Your task to perform on an android device: Search for amazon basics triple a on bestbuy, select the first entry, and add it to the cart. Image 0: 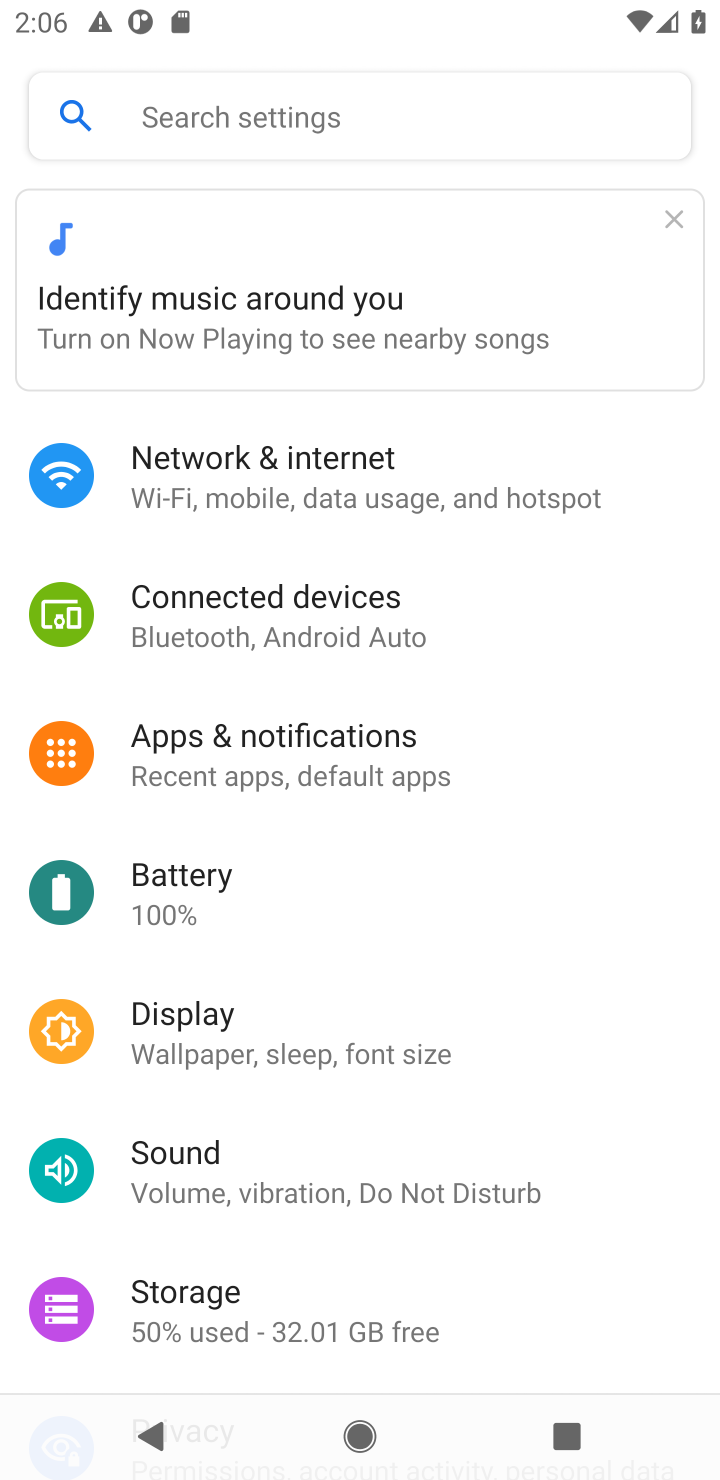
Step 0: press home button
Your task to perform on an android device: Search for amazon basics triple a on bestbuy, select the first entry, and add it to the cart. Image 1: 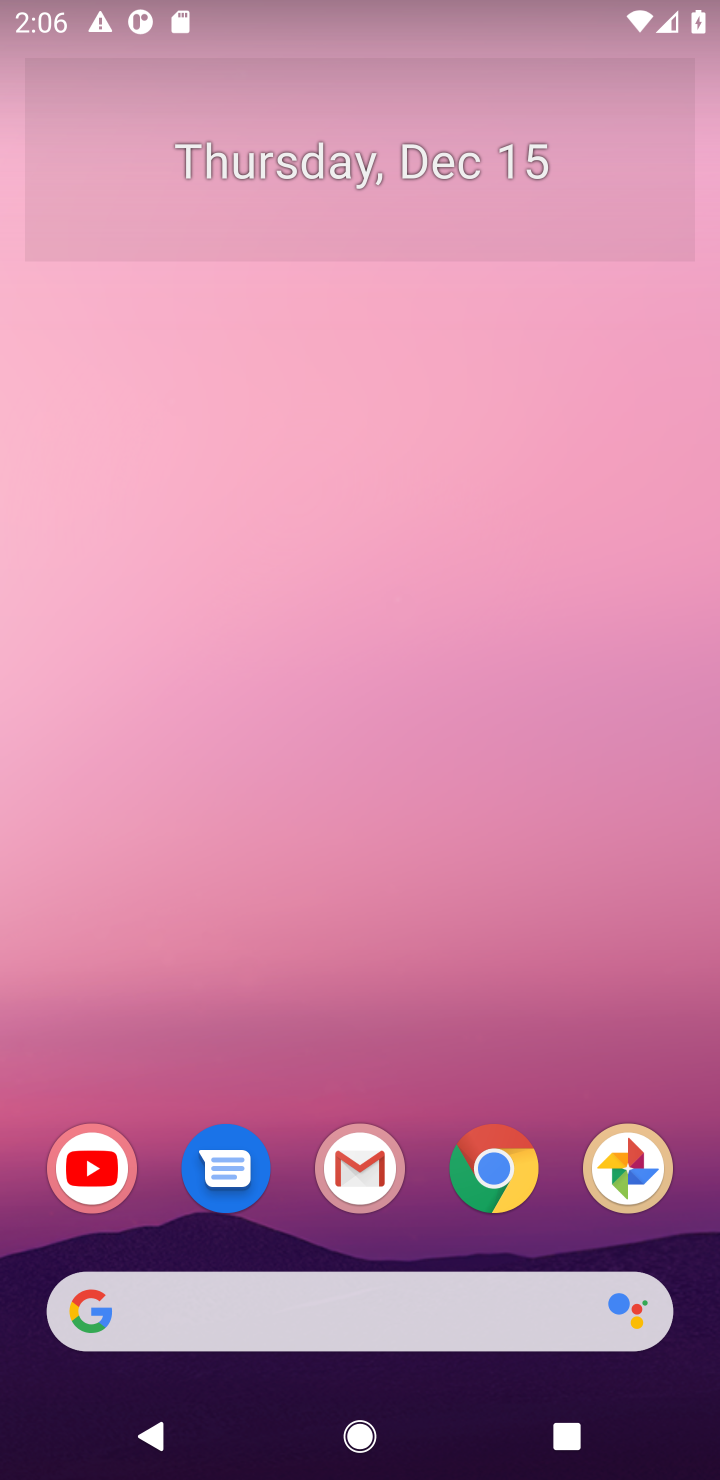
Step 1: click (512, 1177)
Your task to perform on an android device: Search for amazon basics triple a on bestbuy, select the first entry, and add it to the cart. Image 2: 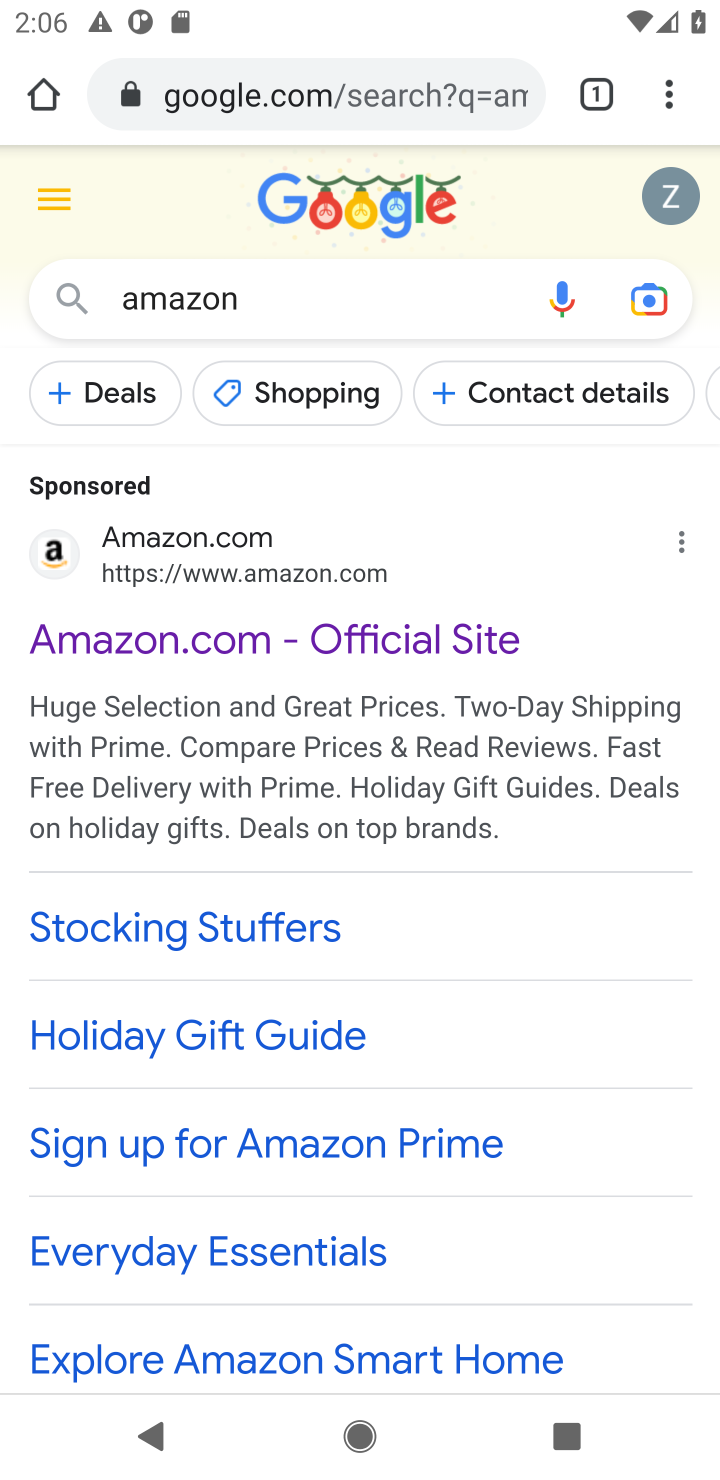
Step 2: click (374, 87)
Your task to perform on an android device: Search for amazon basics triple a on bestbuy, select the first entry, and add it to the cart. Image 3: 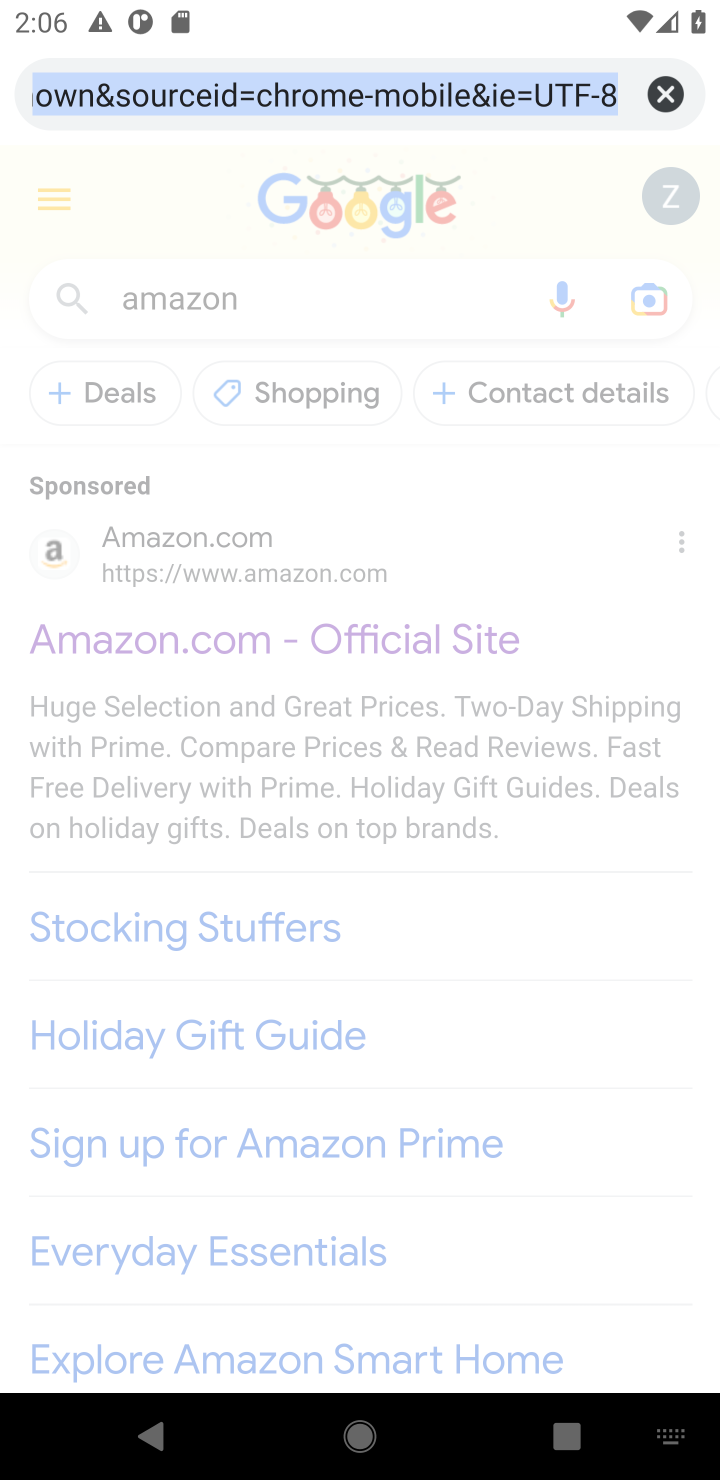
Step 3: click (662, 92)
Your task to perform on an android device: Search for amazon basics triple a on bestbuy, select the first entry, and add it to the cart. Image 4: 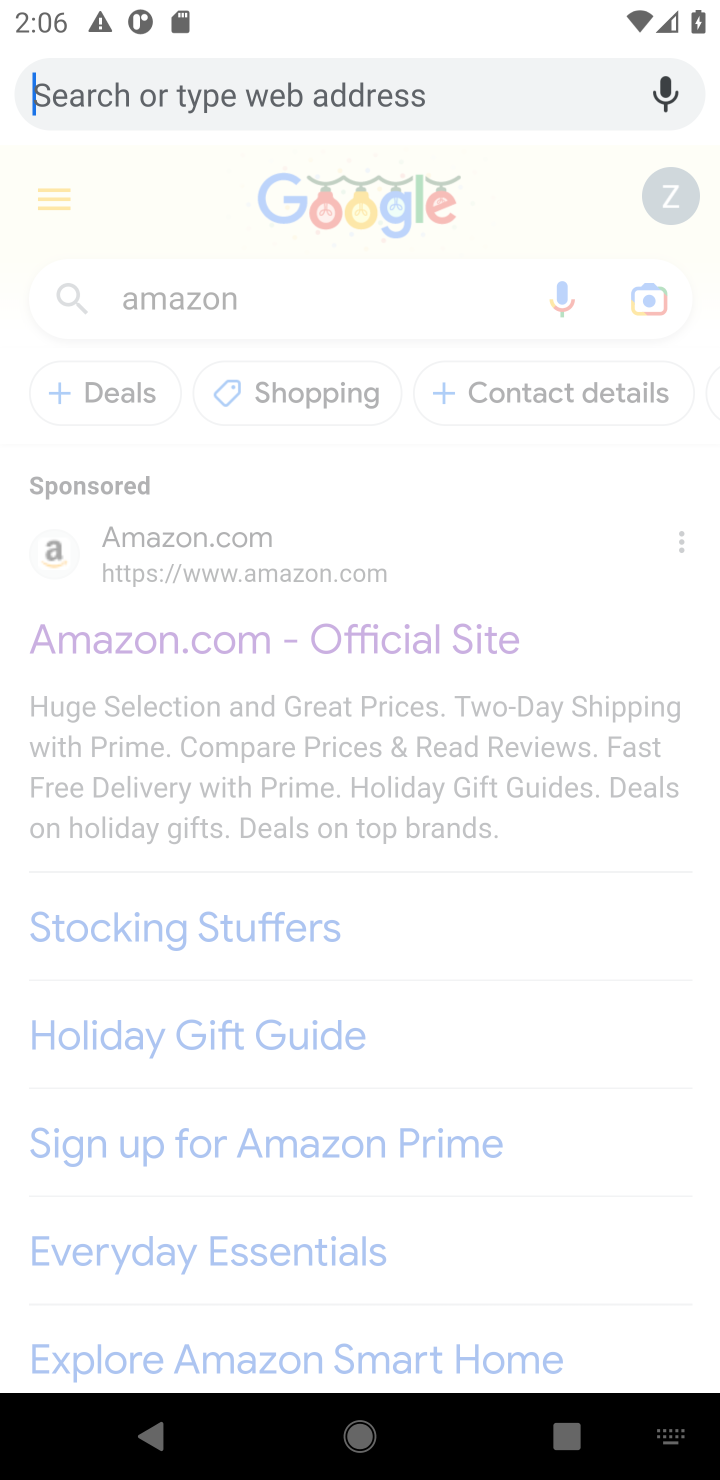
Step 4: click (420, 86)
Your task to perform on an android device: Search for amazon basics triple a on bestbuy, select the first entry, and add it to the cart. Image 5: 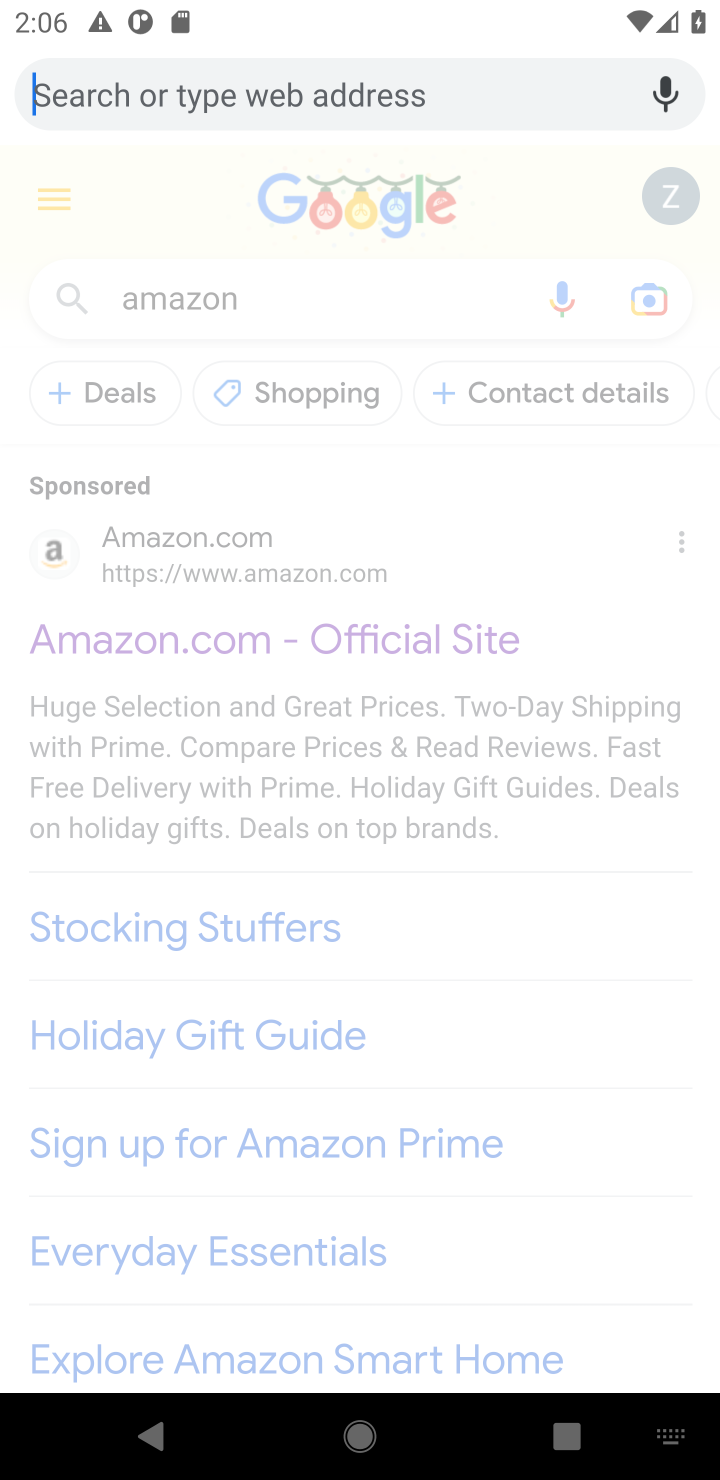
Step 5: press enter
Your task to perform on an android device: Search for amazon basics triple a on bestbuy, select the first entry, and add it to the cart. Image 6: 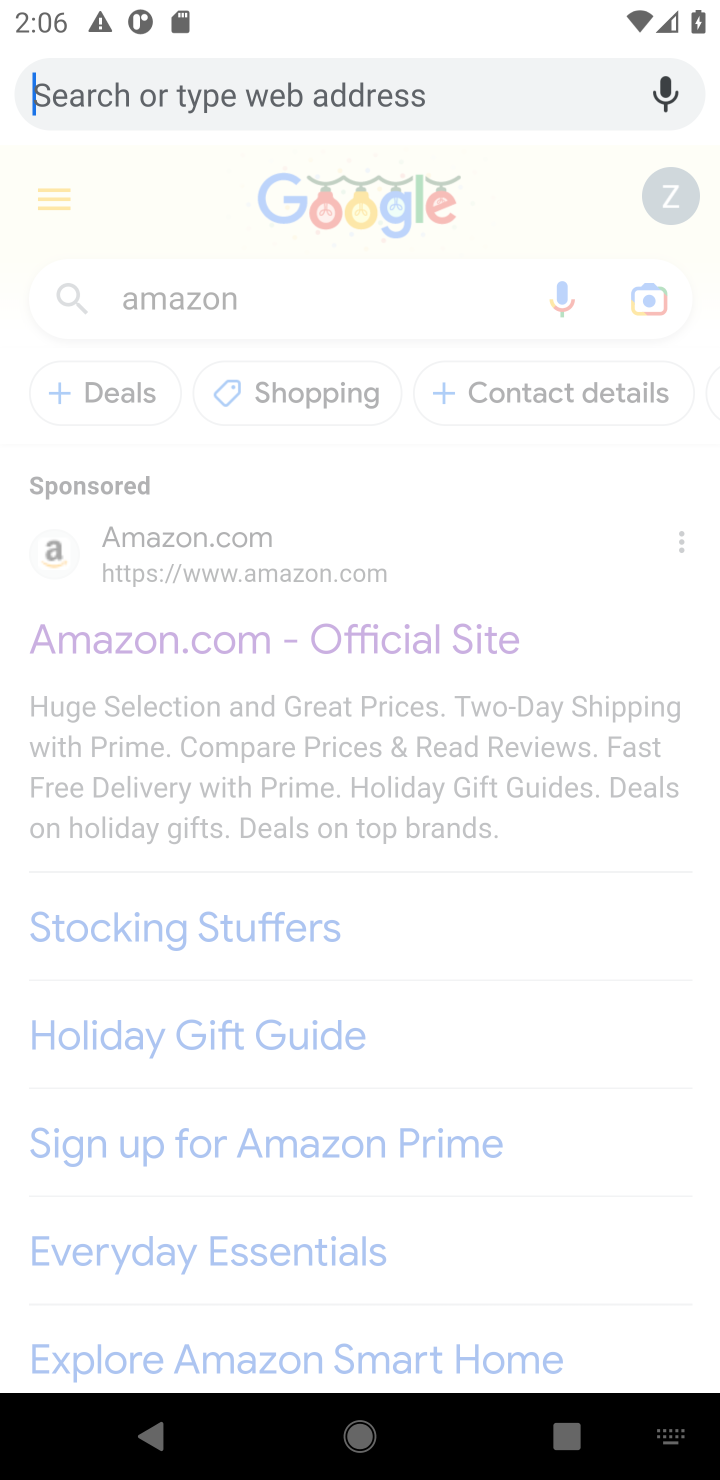
Step 6: type "bestbuy"
Your task to perform on an android device: Search for amazon basics triple a on bestbuy, select the first entry, and add it to the cart. Image 7: 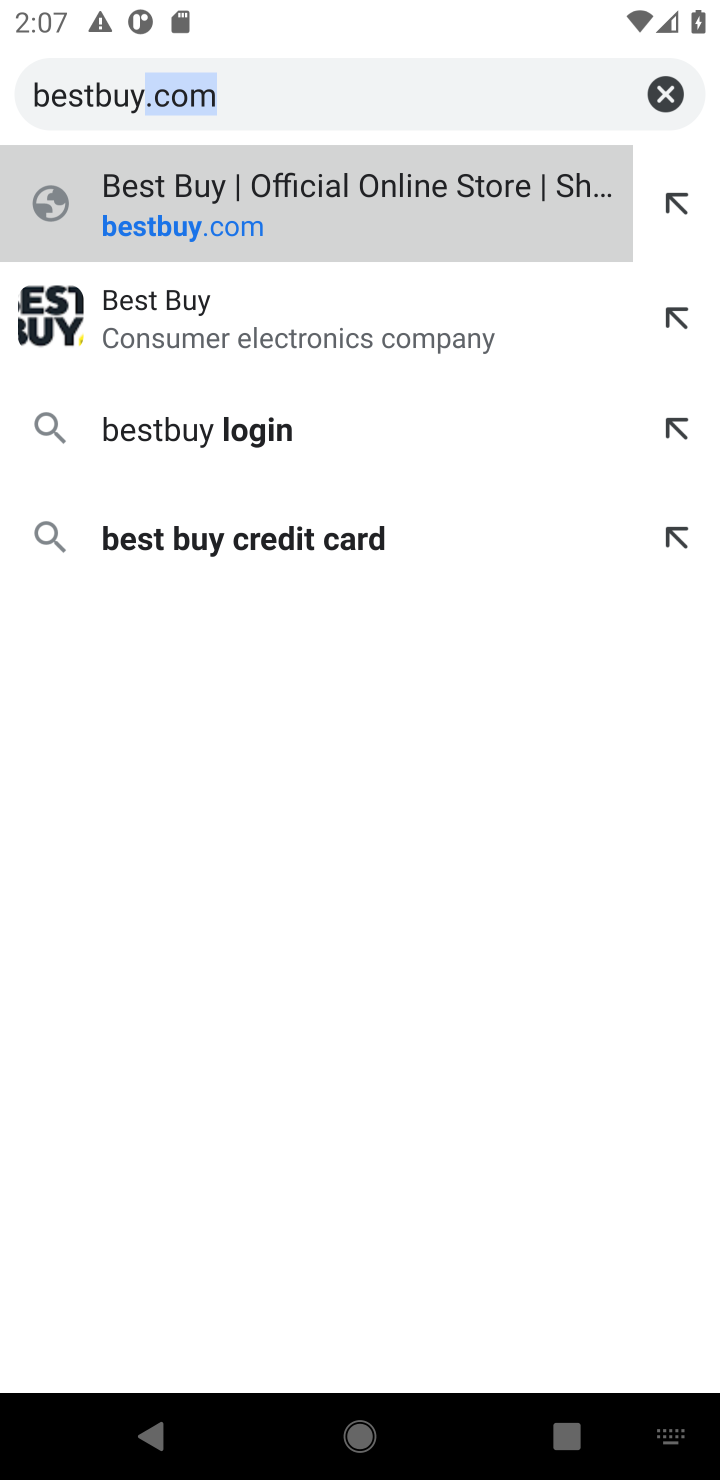
Step 7: click (527, 113)
Your task to perform on an android device: Search for amazon basics triple a on bestbuy, select the first entry, and add it to the cart. Image 8: 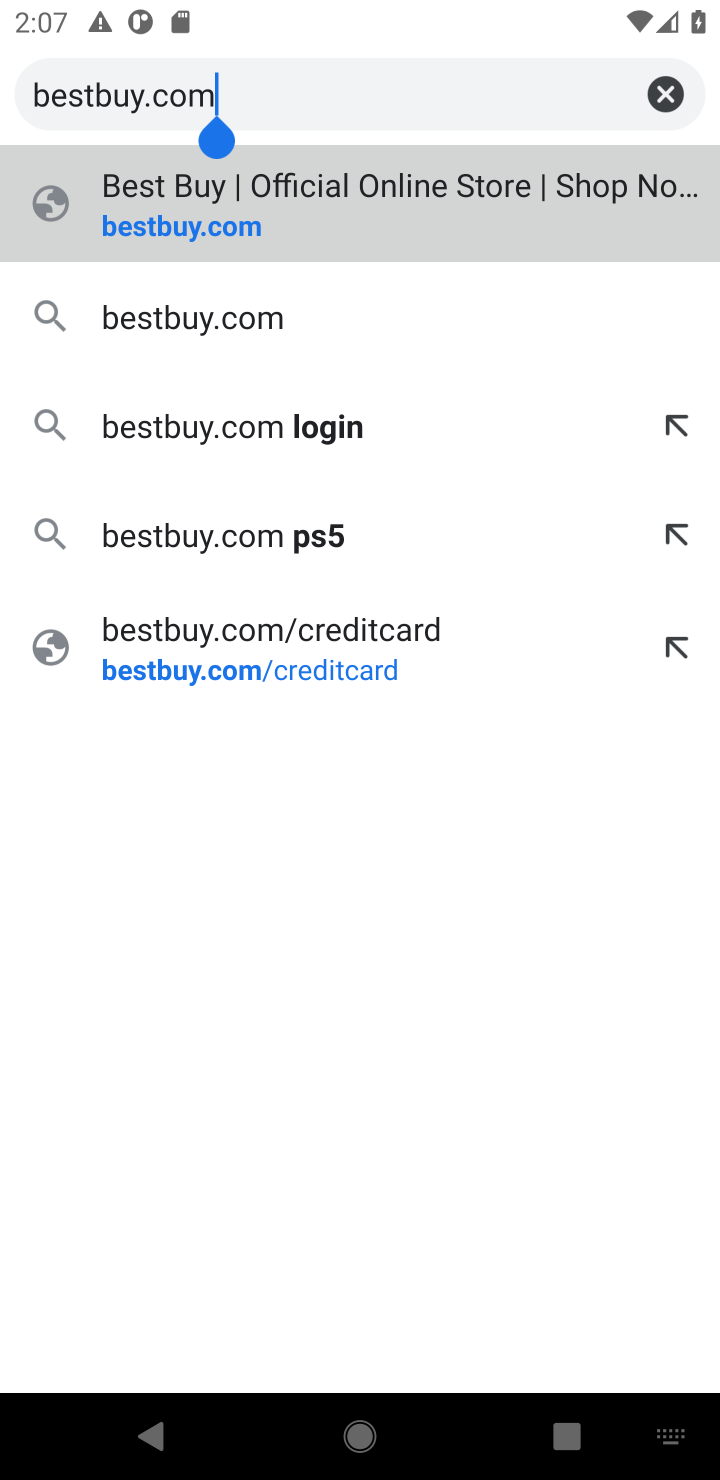
Step 8: click (246, 312)
Your task to perform on an android device: Search for amazon basics triple a on bestbuy, select the first entry, and add it to the cart. Image 9: 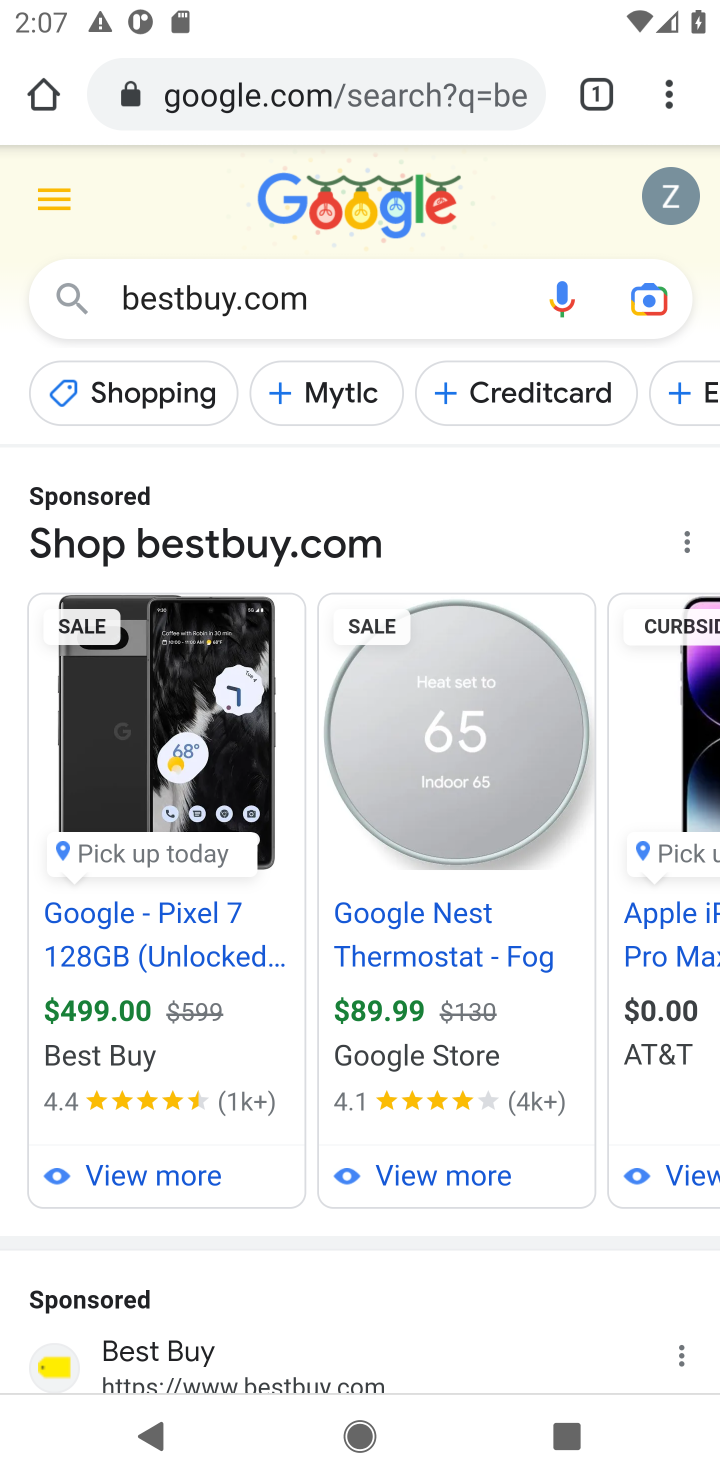
Step 9: click (183, 1338)
Your task to perform on an android device: Search for amazon basics triple a on bestbuy, select the first entry, and add it to the cart. Image 10: 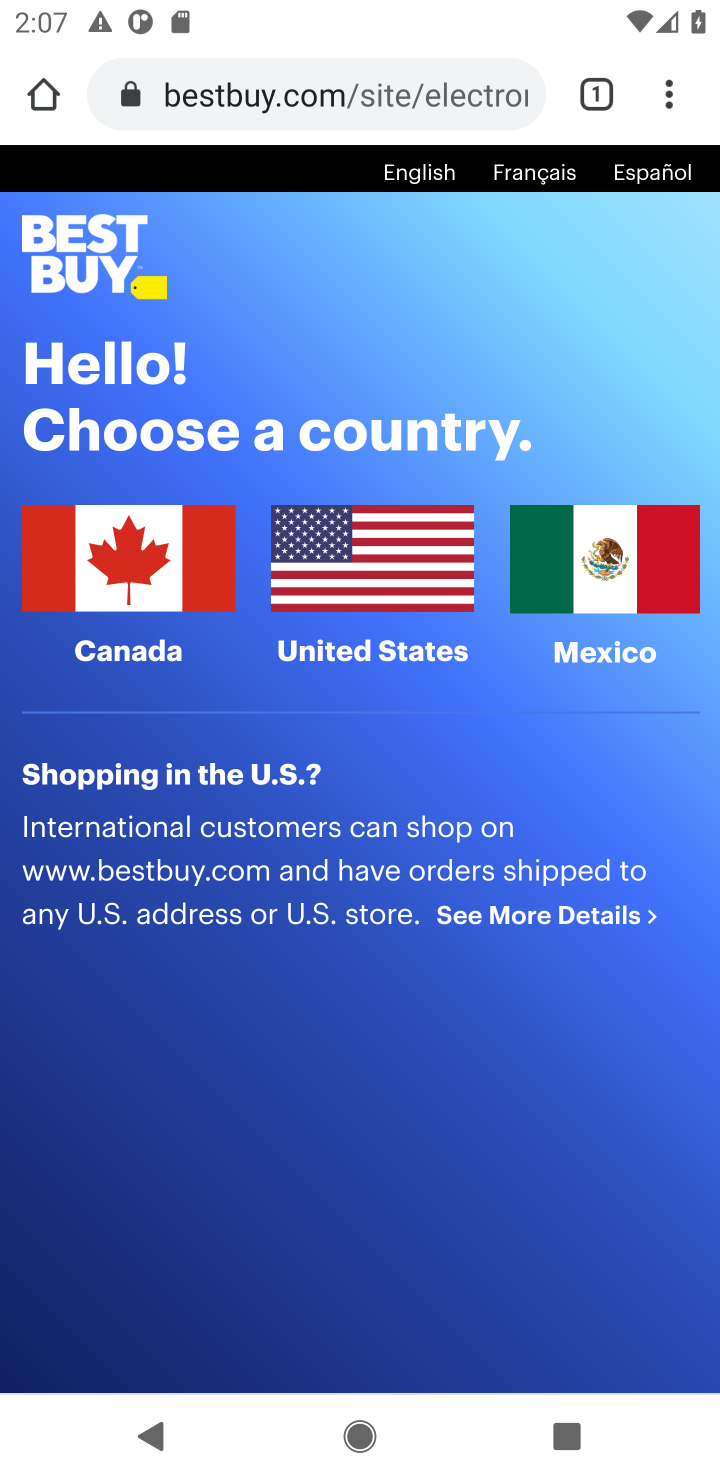
Step 10: click (373, 567)
Your task to perform on an android device: Search for amazon basics triple a on bestbuy, select the first entry, and add it to the cart. Image 11: 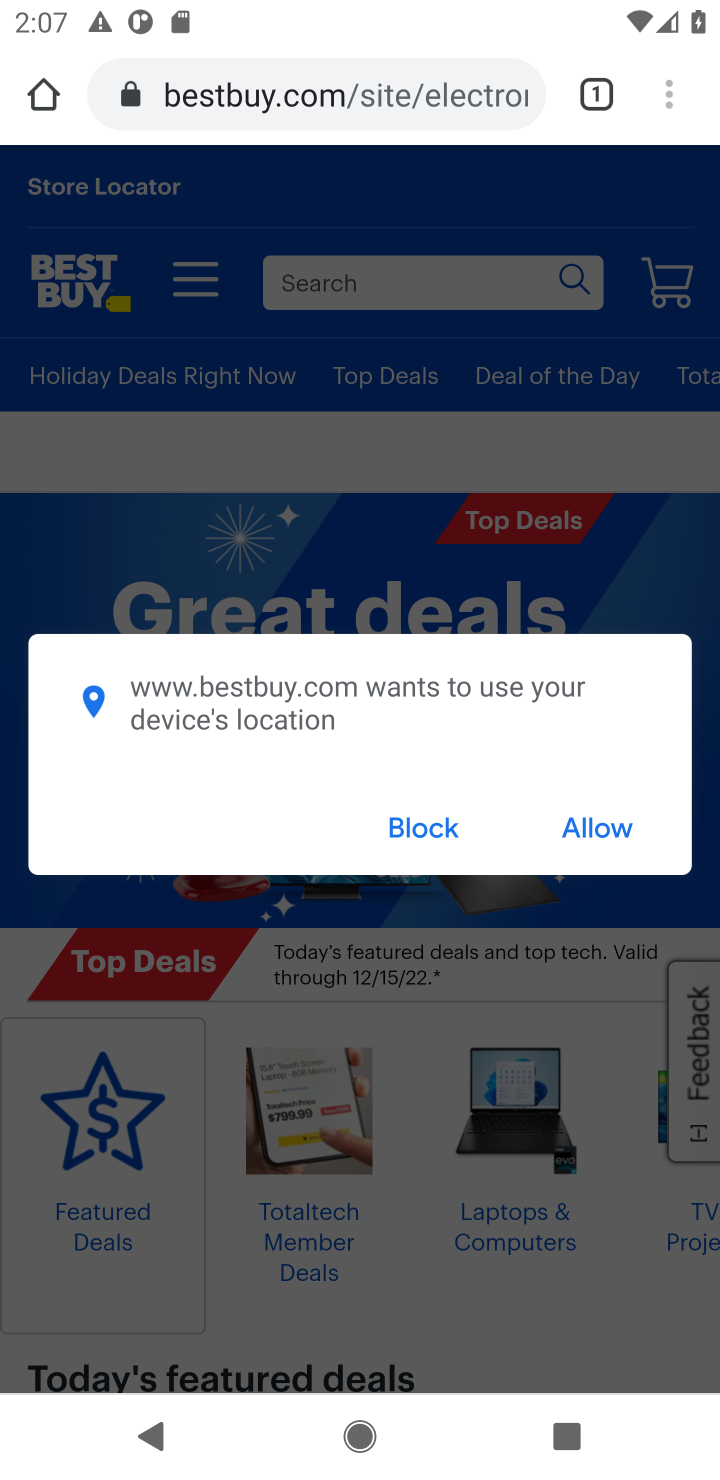
Step 11: click (435, 834)
Your task to perform on an android device: Search for amazon basics triple a on bestbuy, select the first entry, and add it to the cart. Image 12: 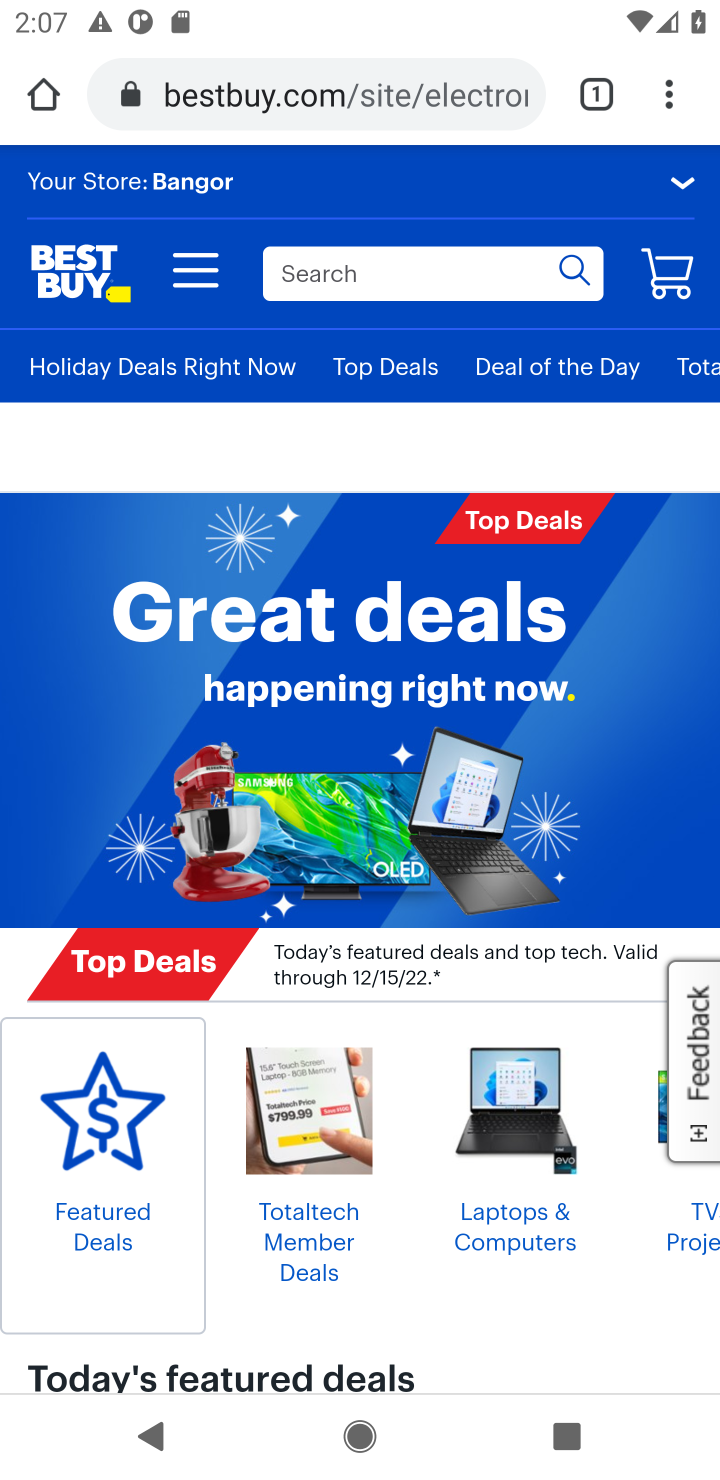
Step 12: click (397, 267)
Your task to perform on an android device: Search for amazon basics triple a on bestbuy, select the first entry, and add it to the cart. Image 13: 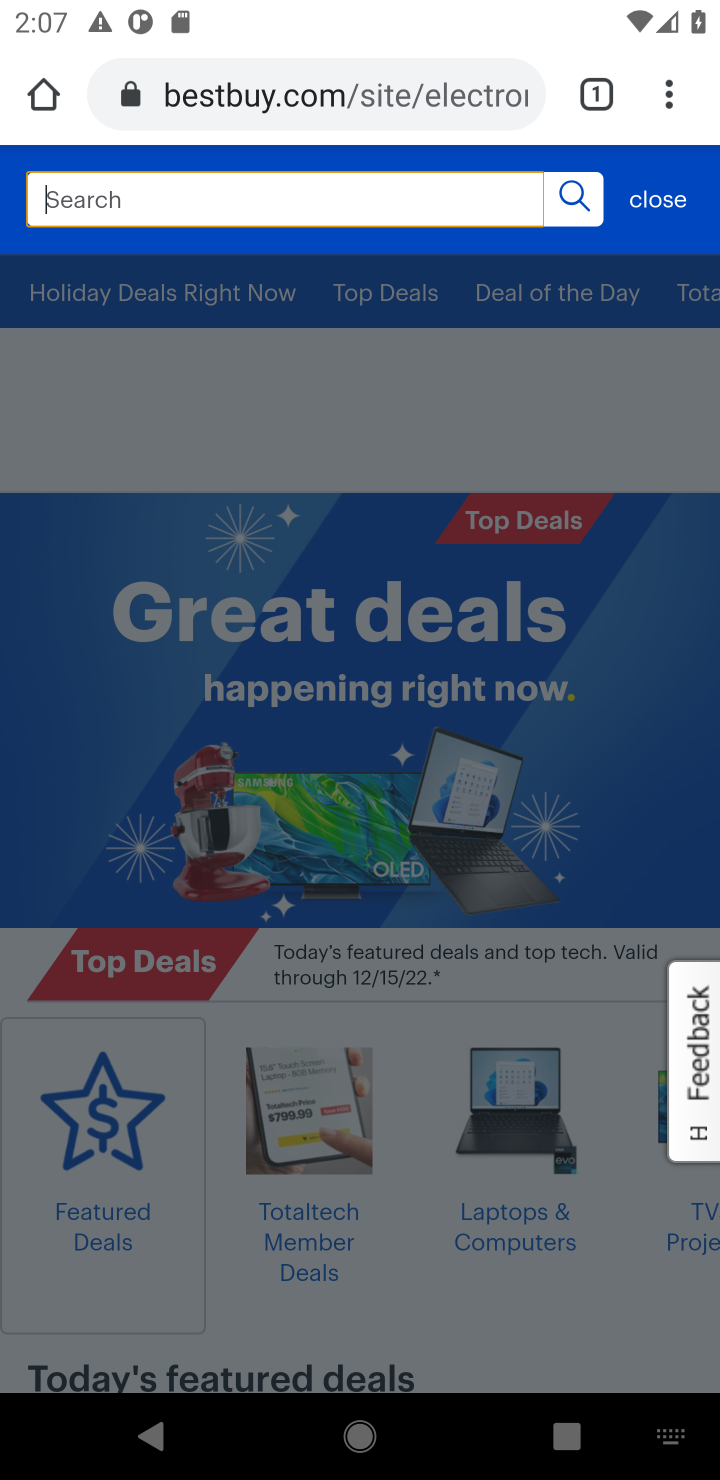
Step 13: press enter
Your task to perform on an android device: Search for amazon basics triple a on bestbuy, select the first entry, and add it to the cart. Image 14: 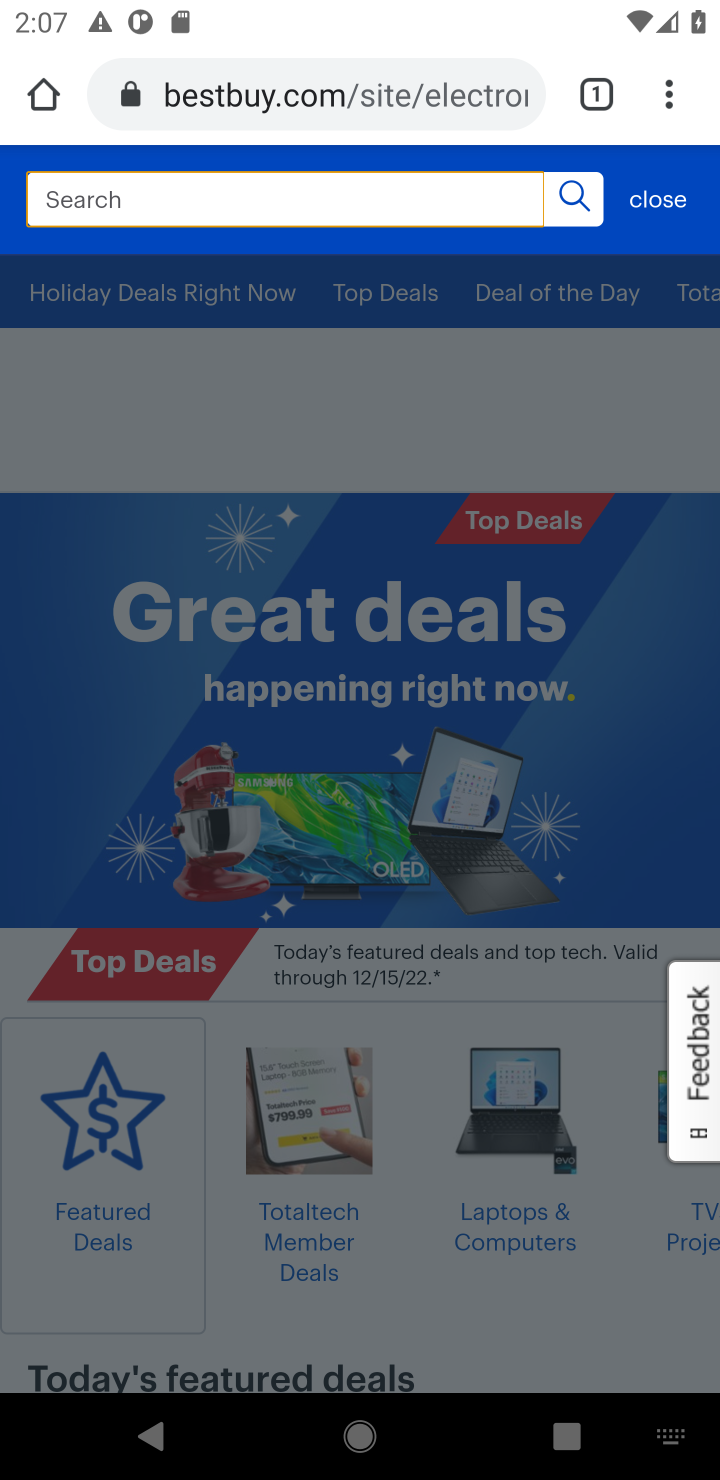
Step 14: type "amazon basics triple a "
Your task to perform on an android device: Search for amazon basics triple a on bestbuy, select the first entry, and add it to the cart. Image 15: 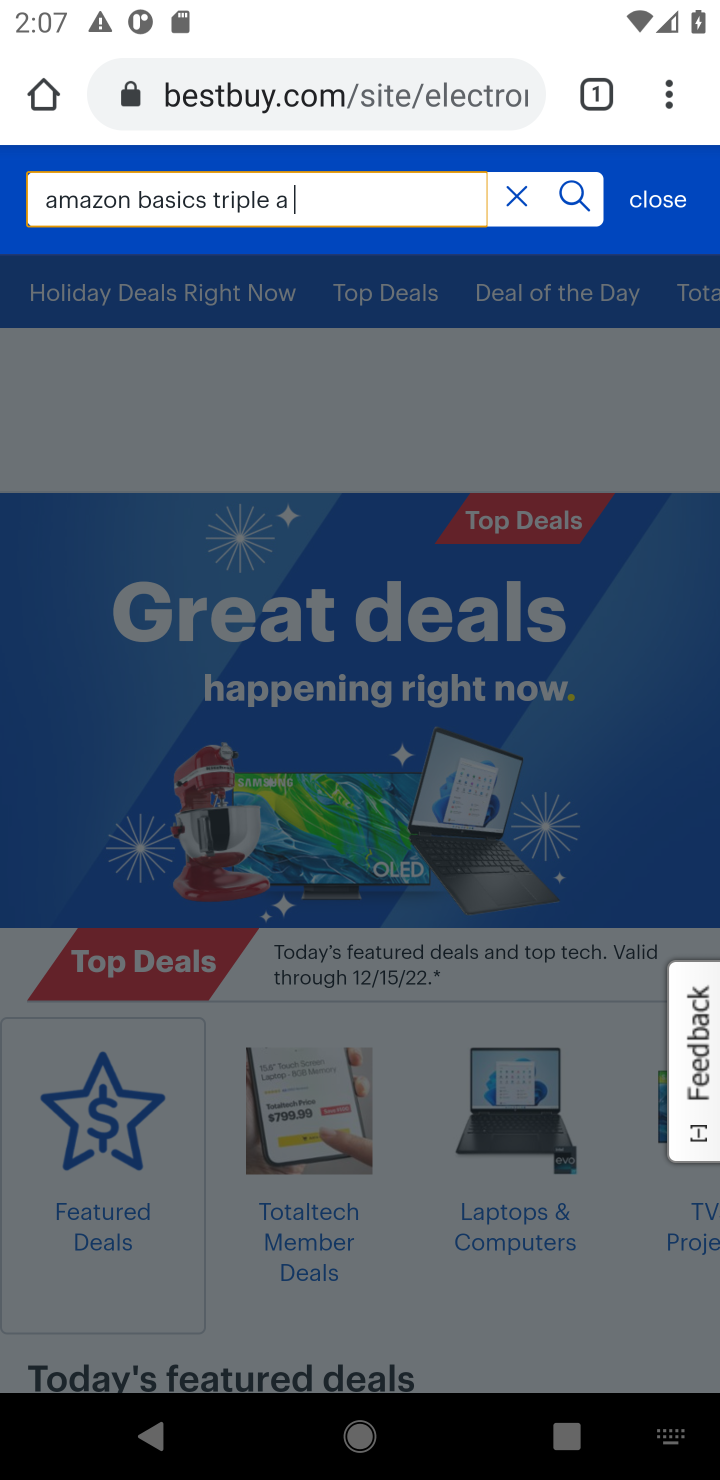
Step 15: click (580, 198)
Your task to perform on an android device: Search for amazon basics triple a on bestbuy, select the first entry, and add it to the cart. Image 16: 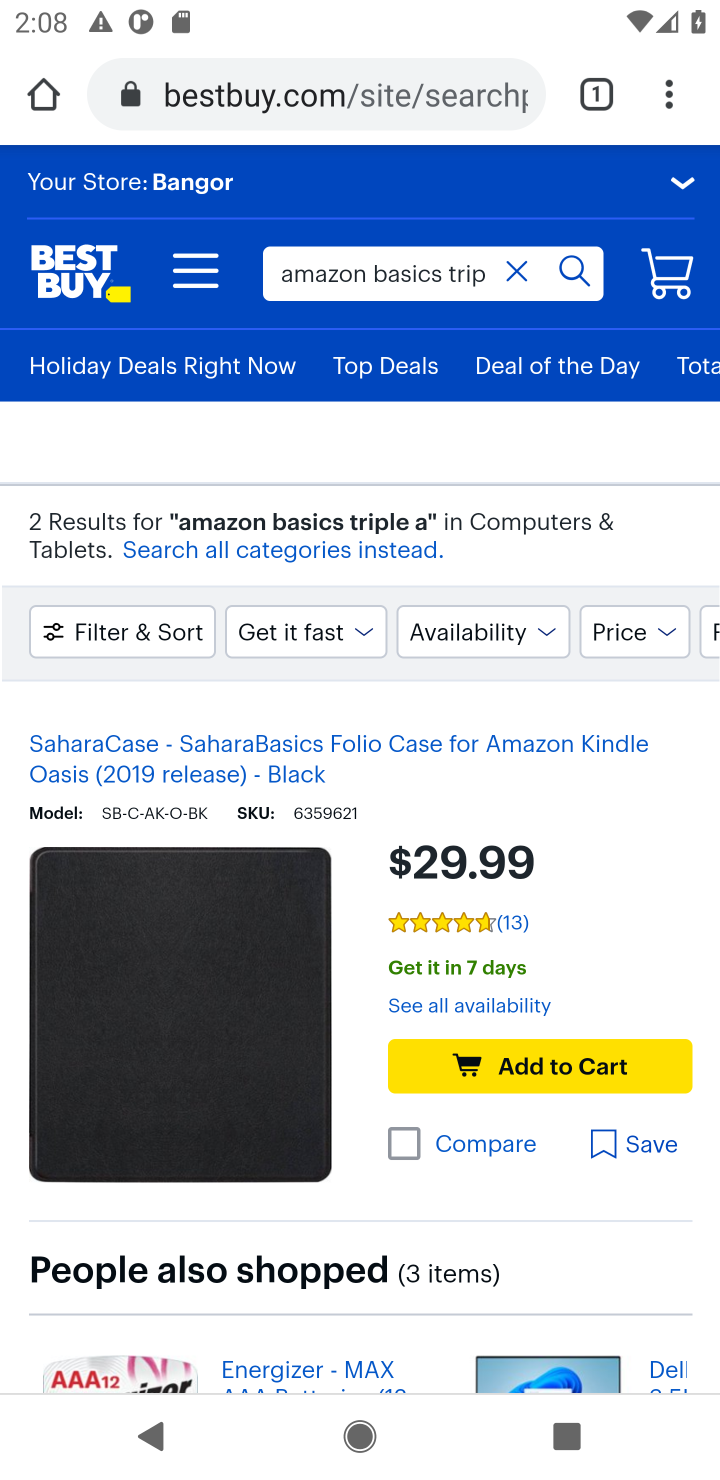
Step 16: task complete